Your task to perform on an android device: Go to notification settings Image 0: 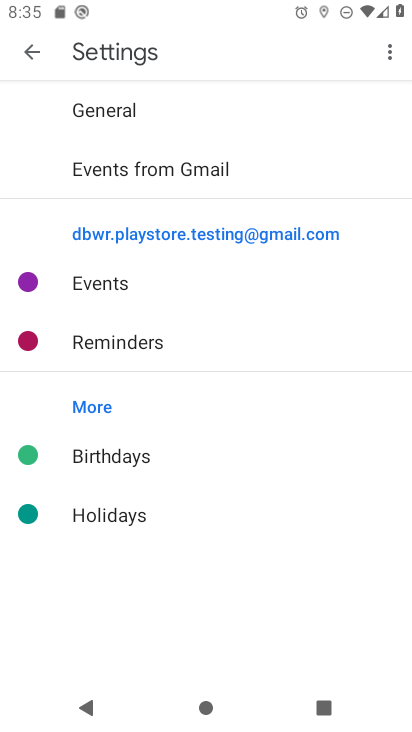
Step 0: press home button
Your task to perform on an android device: Go to notification settings Image 1: 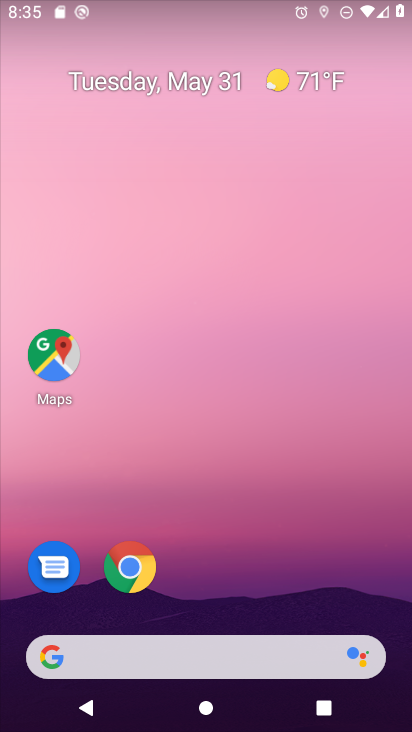
Step 1: drag from (175, 632) to (139, 276)
Your task to perform on an android device: Go to notification settings Image 2: 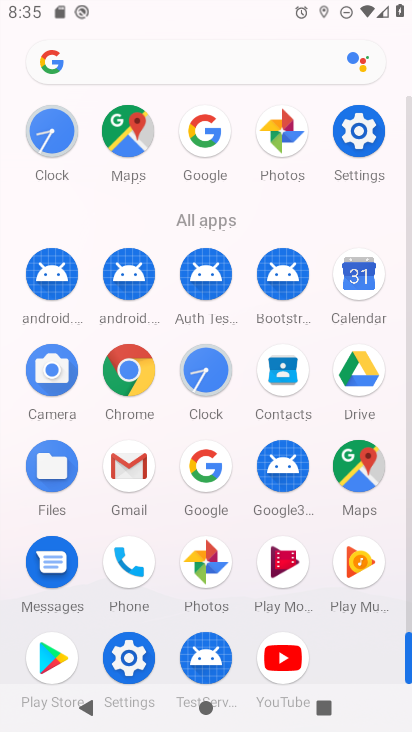
Step 2: click (348, 142)
Your task to perform on an android device: Go to notification settings Image 3: 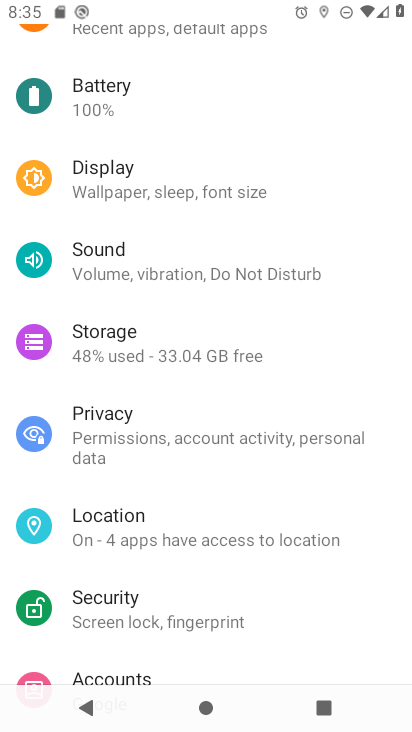
Step 3: drag from (131, 85) to (163, 485)
Your task to perform on an android device: Go to notification settings Image 4: 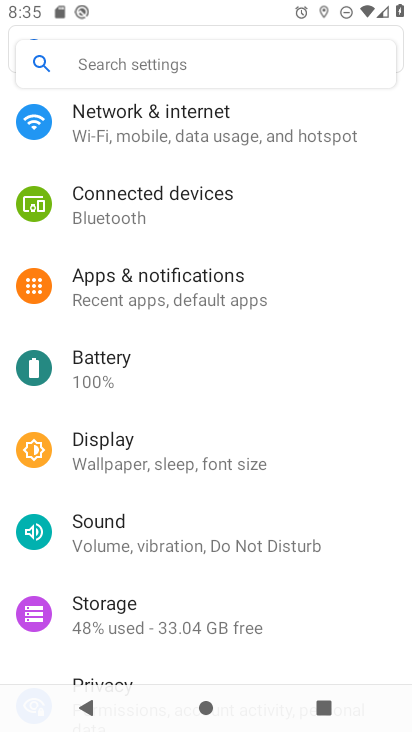
Step 4: click (106, 282)
Your task to perform on an android device: Go to notification settings Image 5: 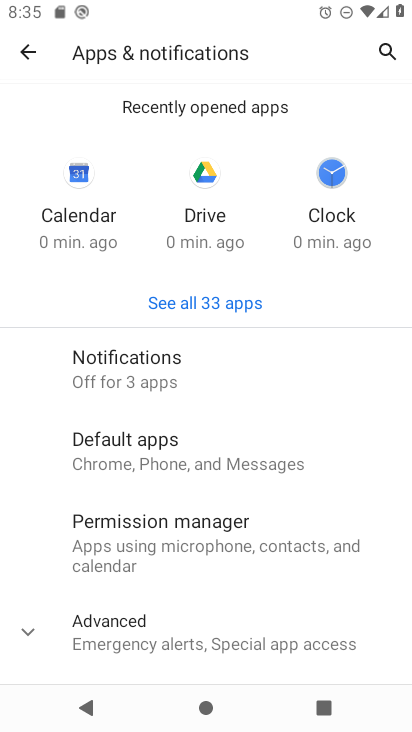
Step 5: click (106, 639)
Your task to perform on an android device: Go to notification settings Image 6: 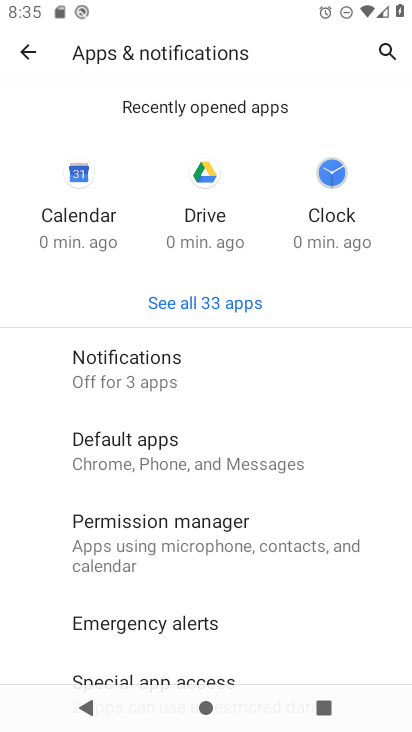
Step 6: task complete